Your task to perform on an android device: turn off improve location accuracy Image 0: 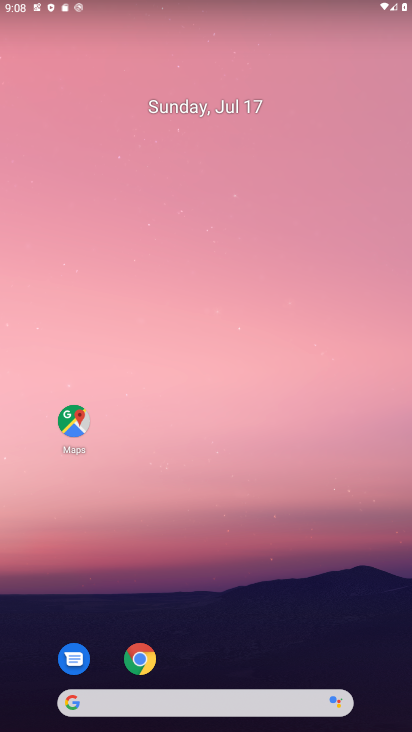
Step 0: drag from (234, 628) to (263, 184)
Your task to perform on an android device: turn off improve location accuracy Image 1: 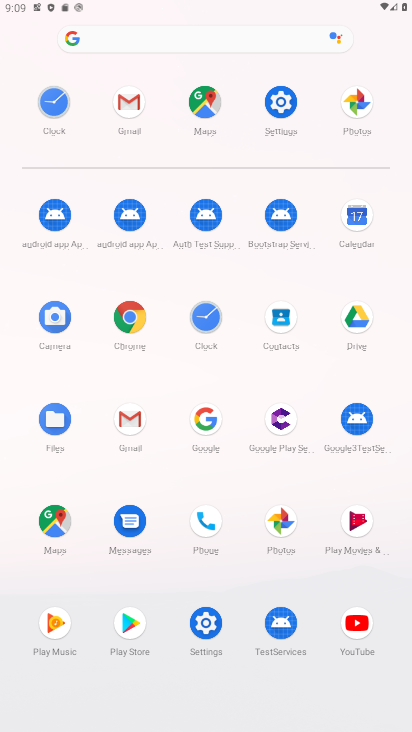
Step 1: click (271, 101)
Your task to perform on an android device: turn off improve location accuracy Image 2: 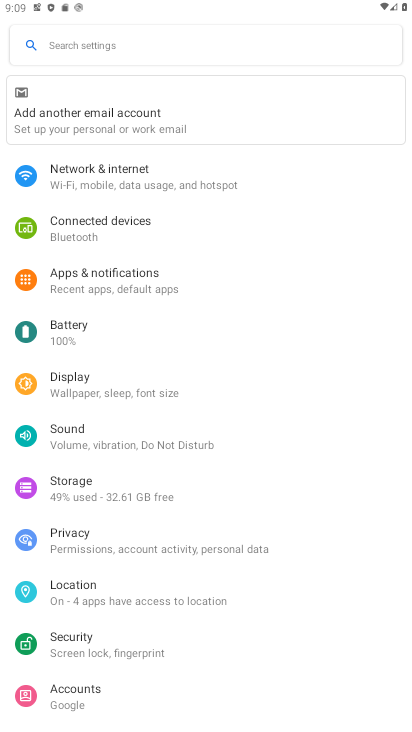
Step 2: click (136, 600)
Your task to perform on an android device: turn off improve location accuracy Image 3: 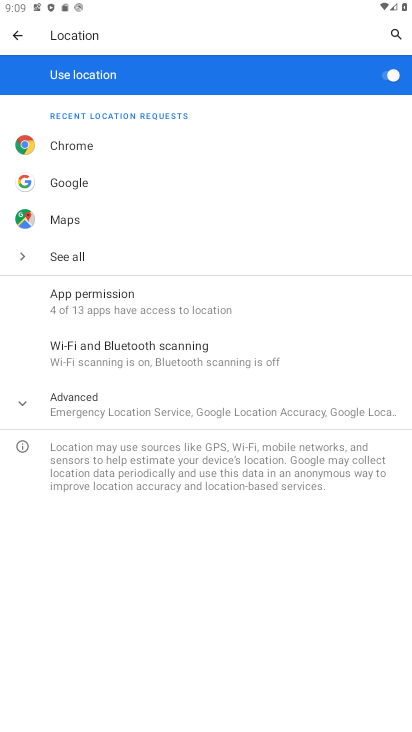
Step 3: click (169, 404)
Your task to perform on an android device: turn off improve location accuracy Image 4: 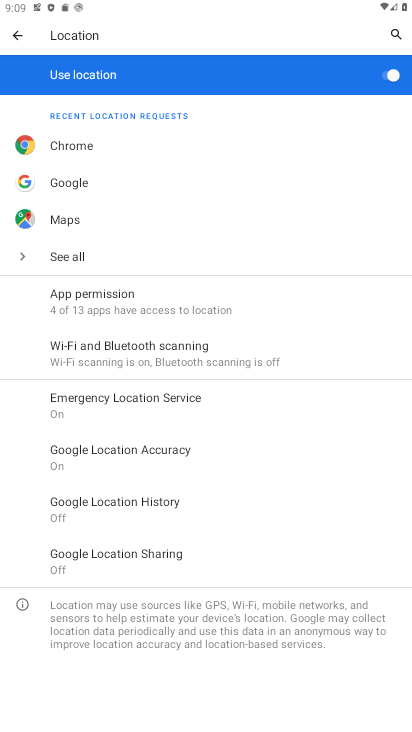
Step 4: click (203, 448)
Your task to perform on an android device: turn off improve location accuracy Image 5: 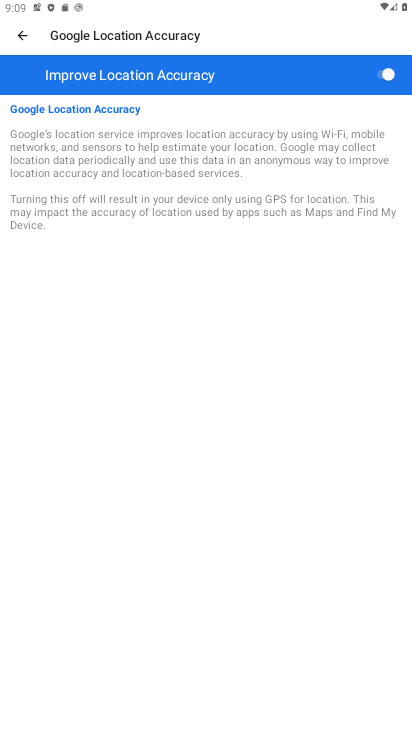
Step 5: click (380, 71)
Your task to perform on an android device: turn off improve location accuracy Image 6: 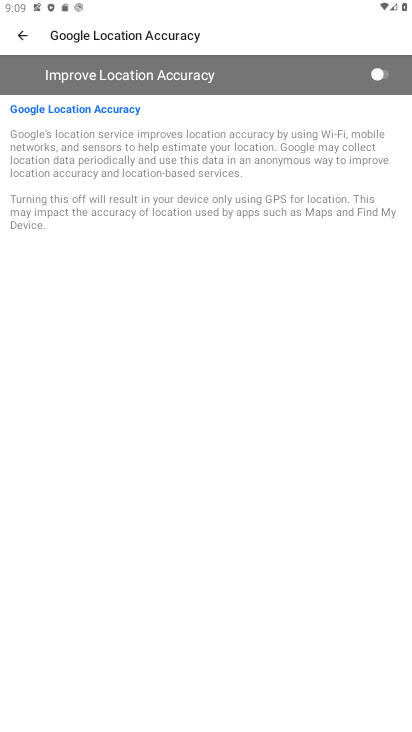
Step 6: task complete